Your task to perform on an android device: What's the weather going to be tomorrow? Image 0: 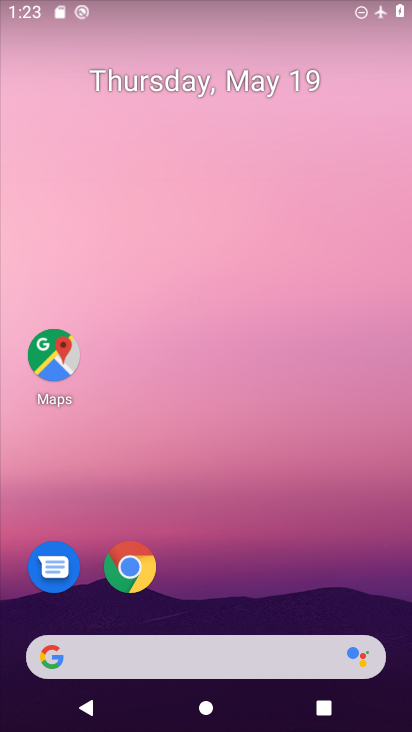
Step 0: click (250, 666)
Your task to perform on an android device: What's the weather going to be tomorrow? Image 1: 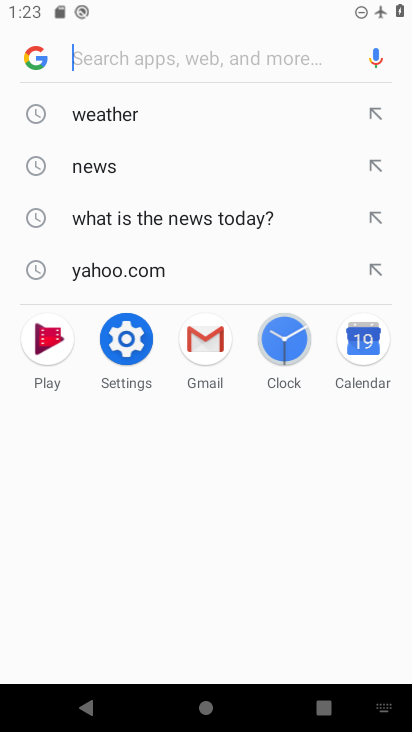
Step 1: click (106, 113)
Your task to perform on an android device: What's the weather going to be tomorrow? Image 2: 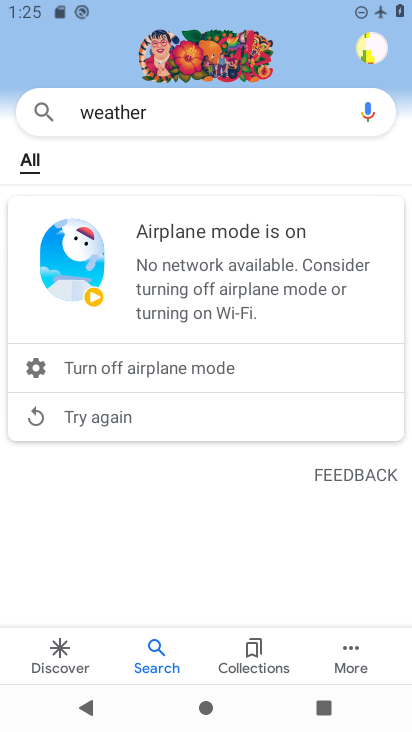
Step 2: task complete